Your task to perform on an android device: open app "Etsy: Buy & Sell Unique Items" (install if not already installed) Image 0: 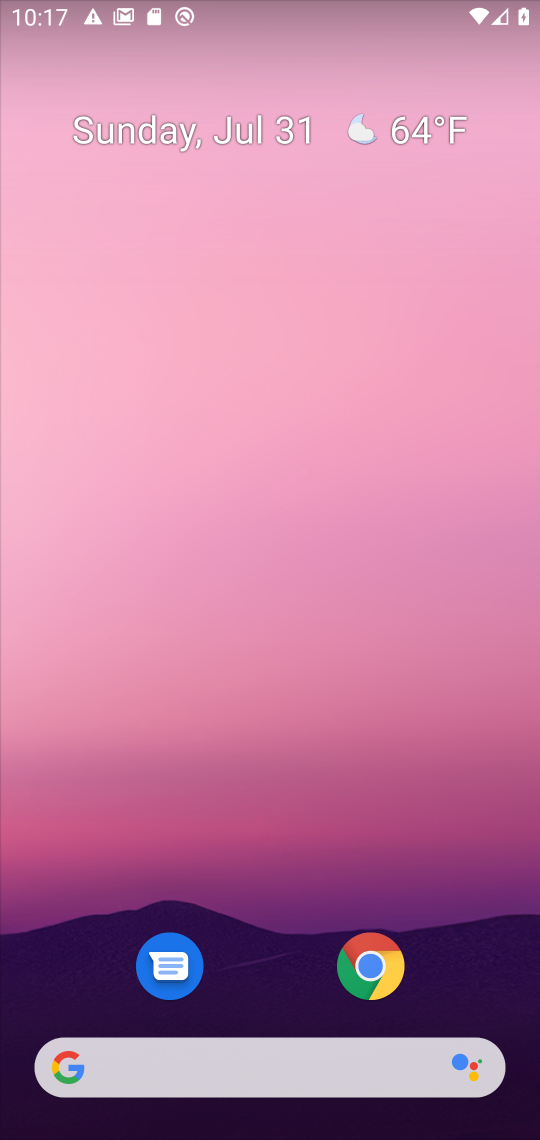
Step 0: drag from (262, 1004) to (320, 195)
Your task to perform on an android device: open app "Etsy: Buy & Sell Unique Items" (install if not already installed) Image 1: 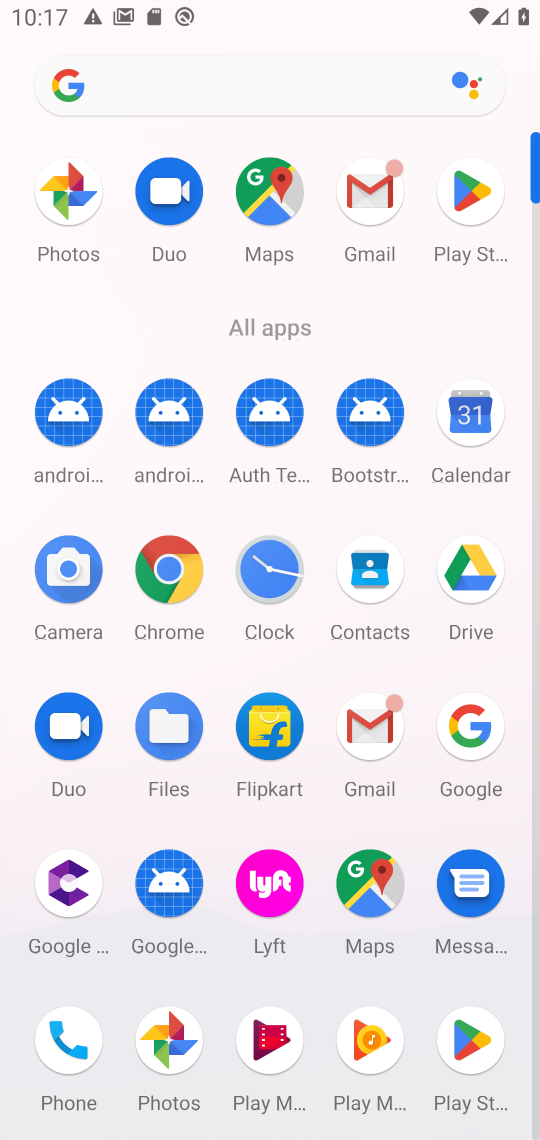
Step 1: click (468, 195)
Your task to perform on an android device: open app "Etsy: Buy & Sell Unique Items" (install if not already installed) Image 2: 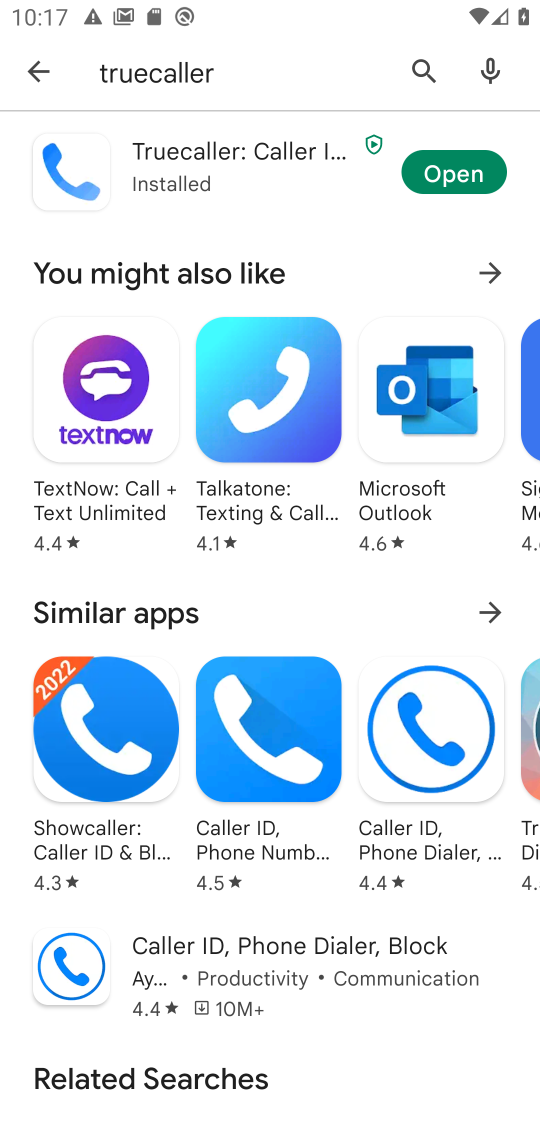
Step 2: click (210, 85)
Your task to perform on an android device: open app "Etsy: Buy & Sell Unique Items" (install if not already installed) Image 3: 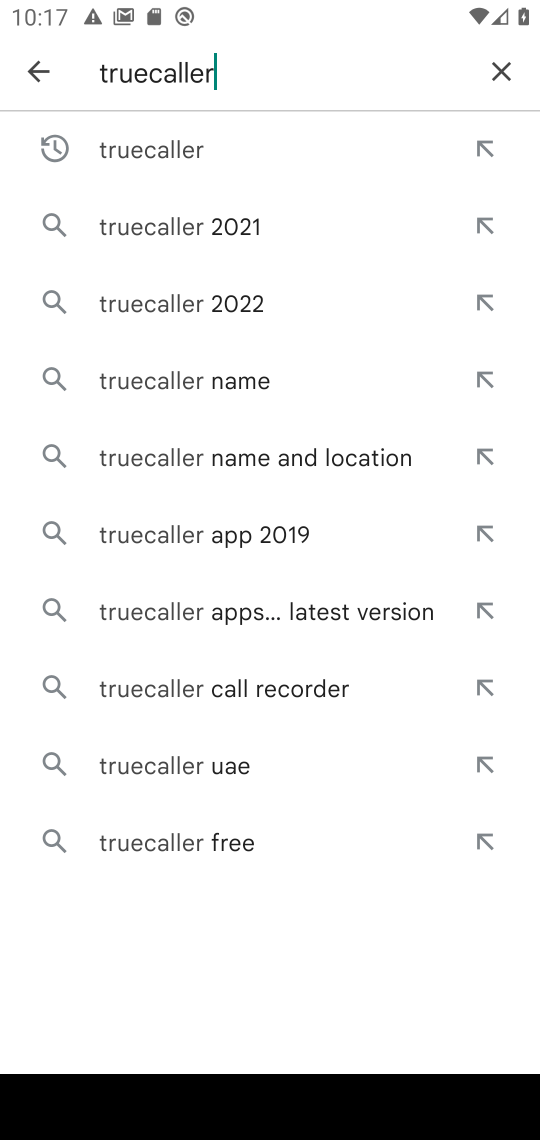
Step 3: click (500, 78)
Your task to perform on an android device: open app "Etsy: Buy & Sell Unique Items" (install if not already installed) Image 4: 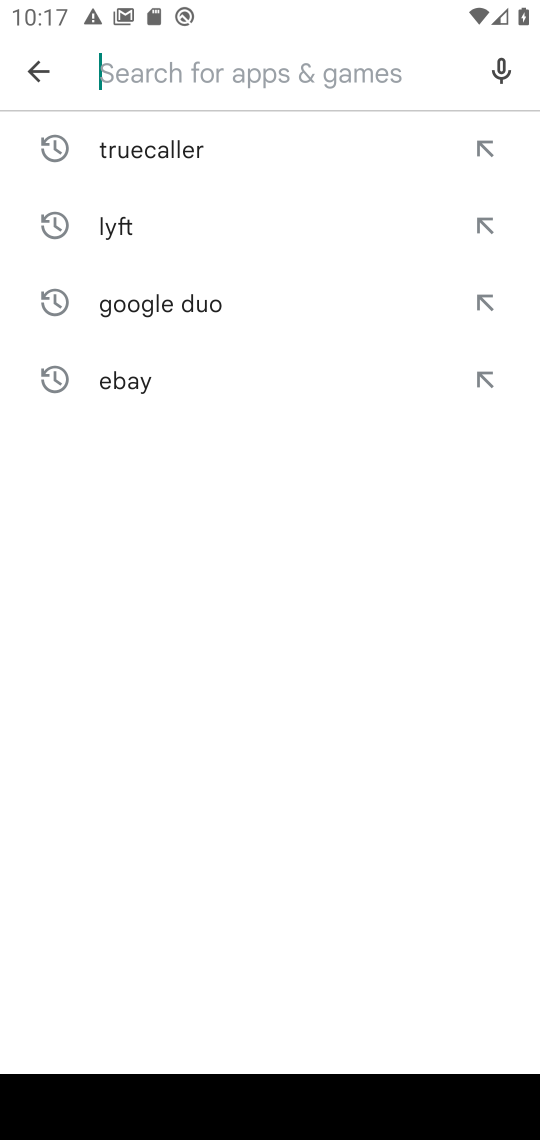
Step 4: type "etsy"
Your task to perform on an android device: open app "Etsy: Buy & Sell Unique Items" (install if not already installed) Image 5: 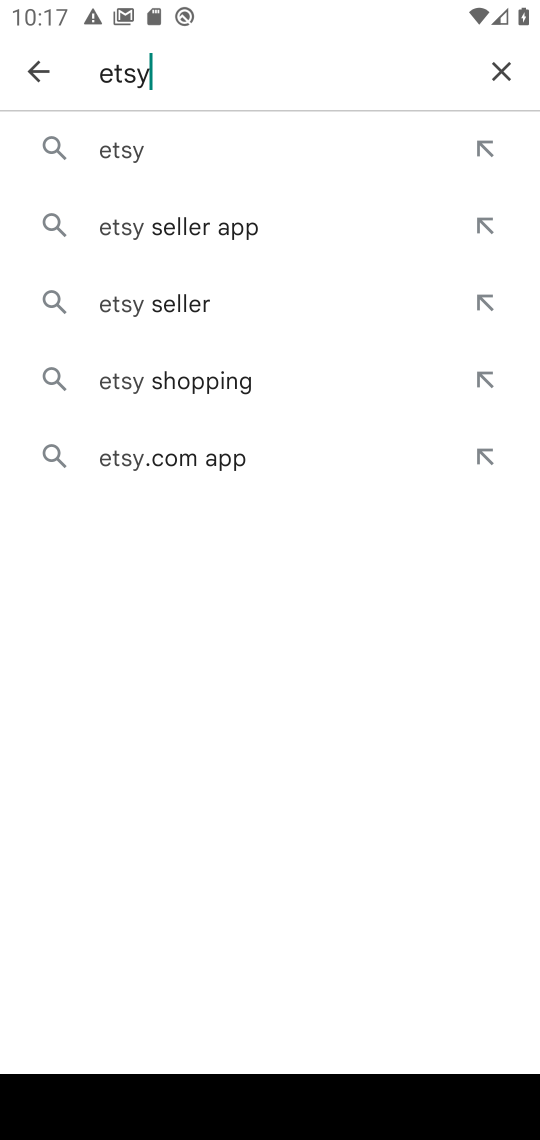
Step 5: click (146, 150)
Your task to perform on an android device: open app "Etsy: Buy & Sell Unique Items" (install if not already installed) Image 6: 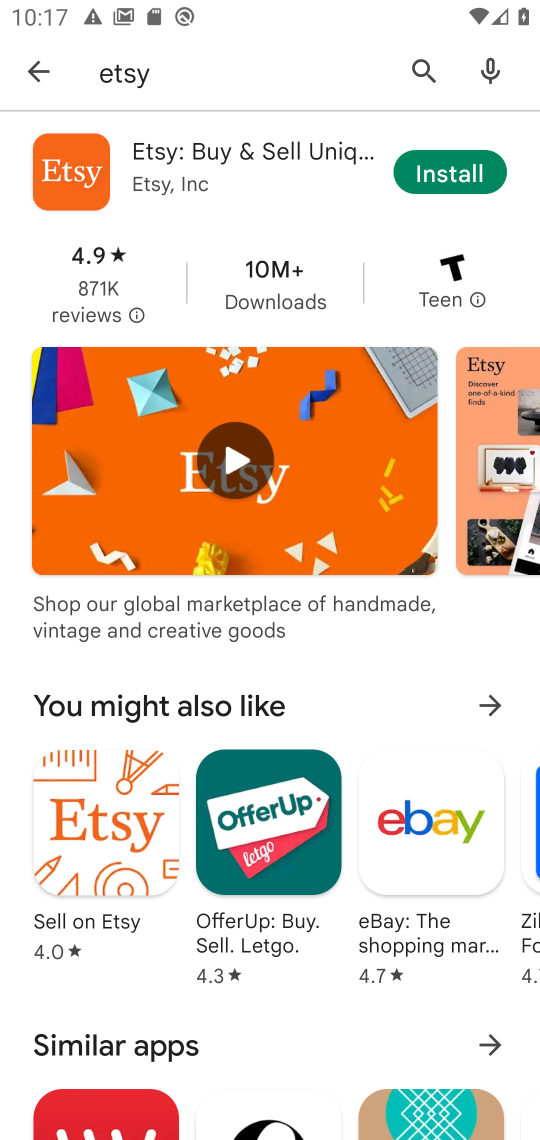
Step 6: click (440, 165)
Your task to perform on an android device: open app "Etsy: Buy & Sell Unique Items" (install if not already installed) Image 7: 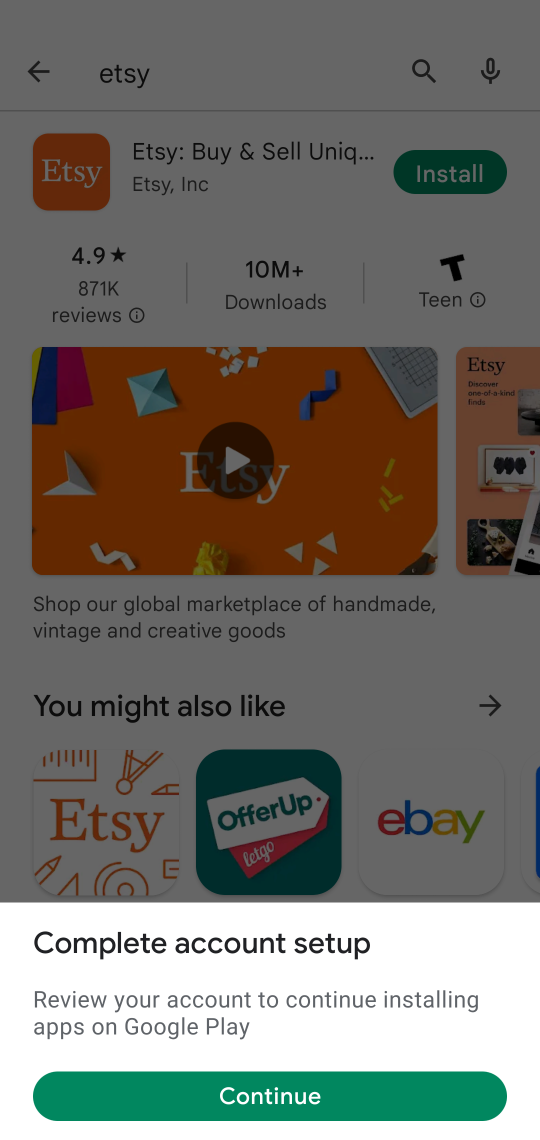
Step 7: click (205, 1109)
Your task to perform on an android device: open app "Etsy: Buy & Sell Unique Items" (install if not already installed) Image 8: 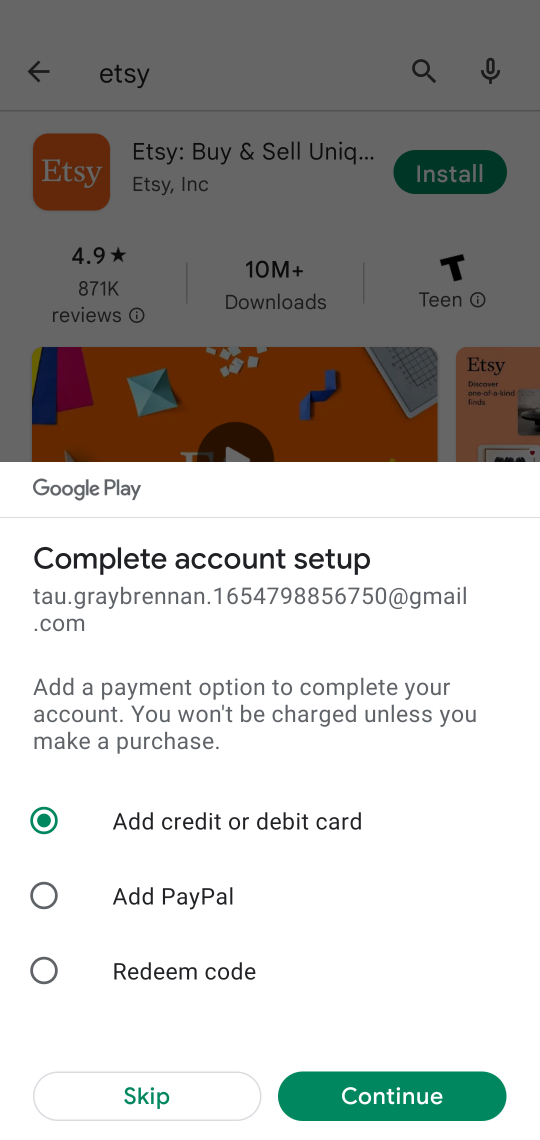
Step 8: click (126, 1093)
Your task to perform on an android device: open app "Etsy: Buy & Sell Unique Items" (install if not already installed) Image 9: 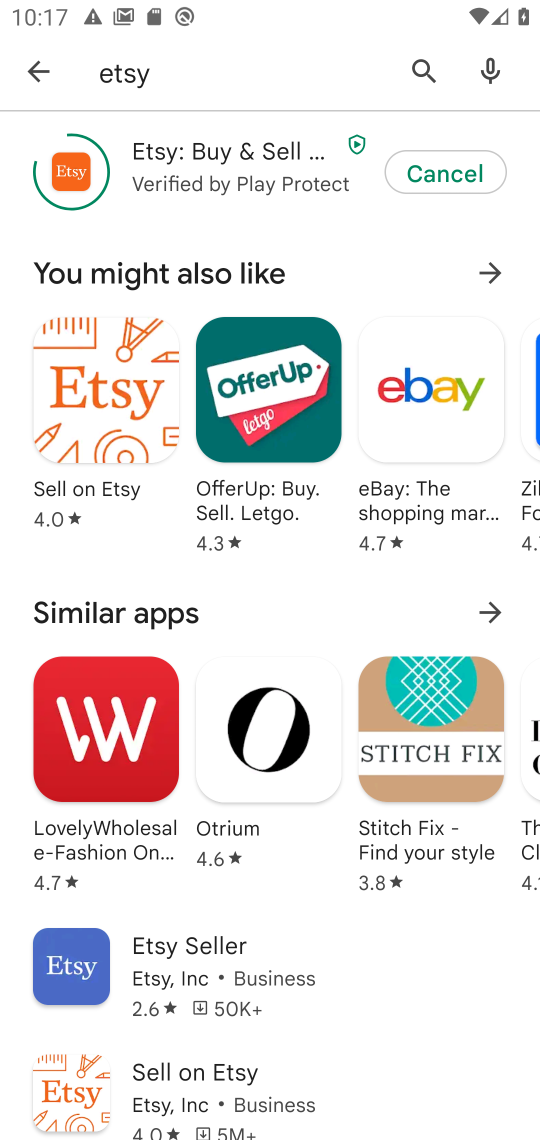
Step 9: click (422, 166)
Your task to perform on an android device: open app "Etsy: Buy & Sell Unique Items" (install if not already installed) Image 10: 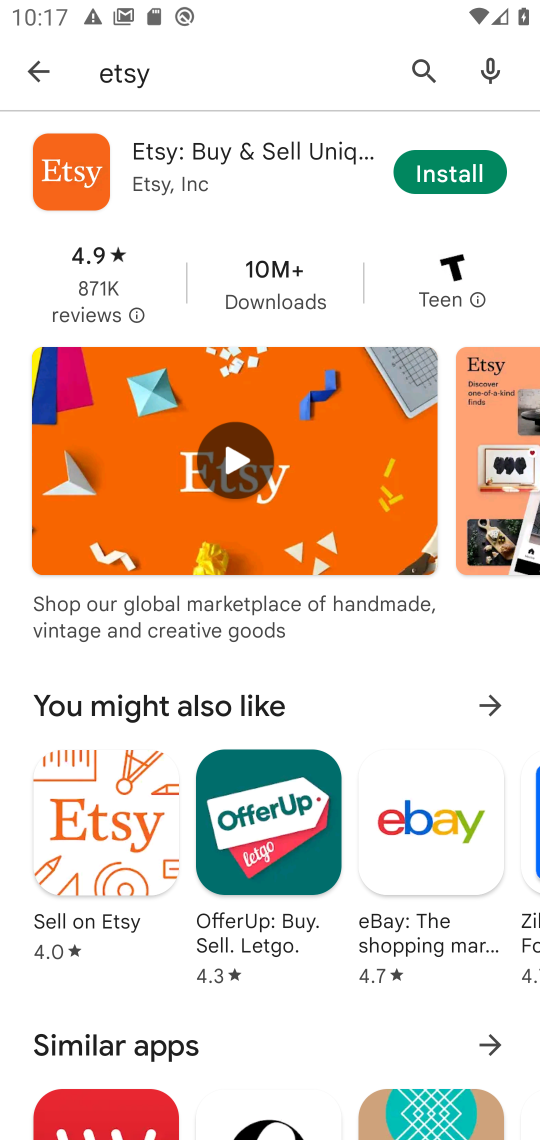
Step 10: click (423, 173)
Your task to perform on an android device: open app "Etsy: Buy & Sell Unique Items" (install if not already installed) Image 11: 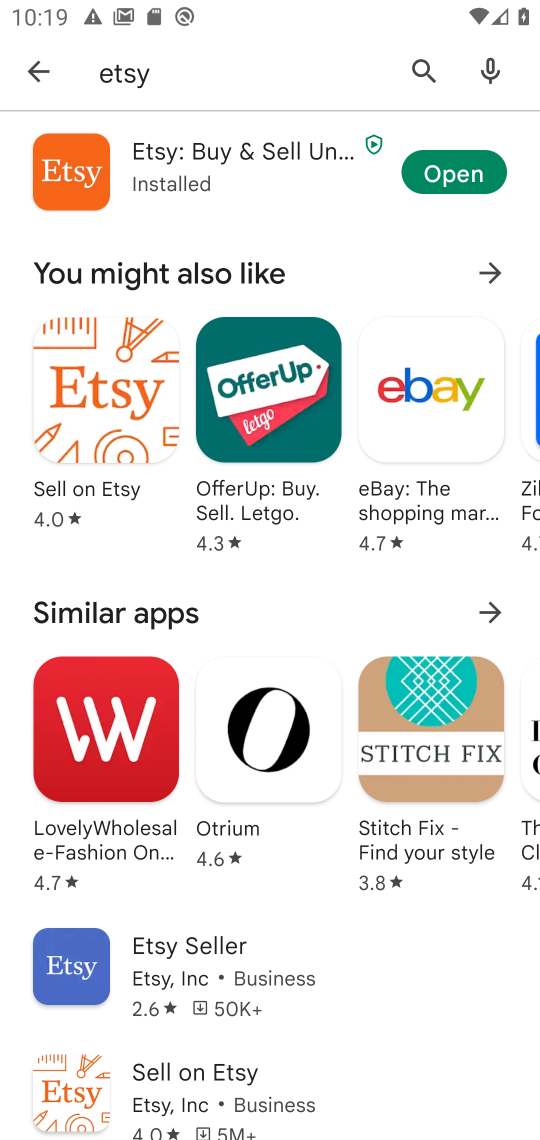
Step 11: click (434, 173)
Your task to perform on an android device: open app "Etsy: Buy & Sell Unique Items" (install if not already installed) Image 12: 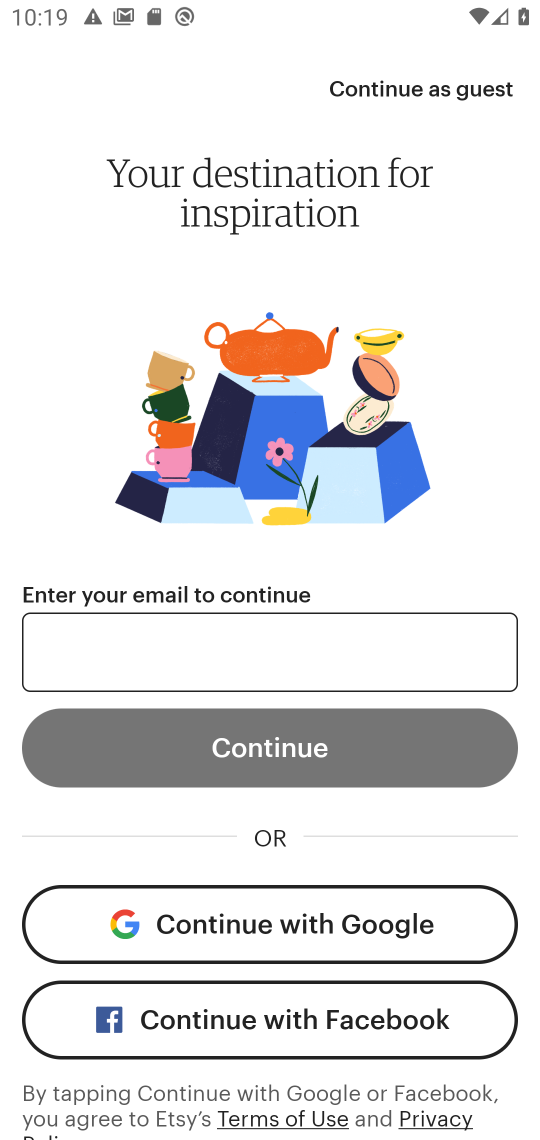
Step 12: click (357, 922)
Your task to perform on an android device: open app "Etsy: Buy & Sell Unique Items" (install if not already installed) Image 13: 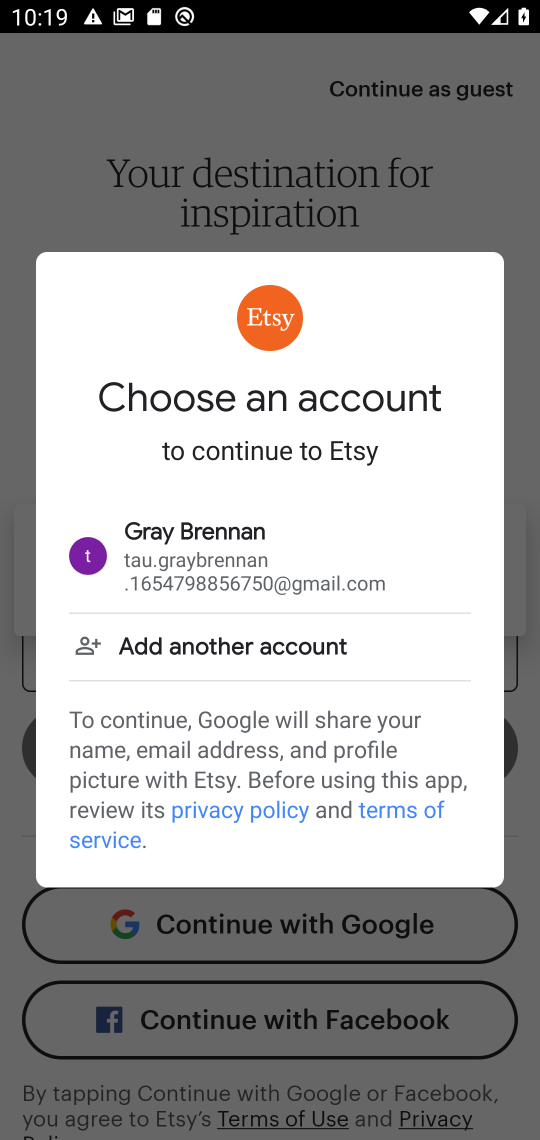
Step 13: click (266, 574)
Your task to perform on an android device: open app "Etsy: Buy & Sell Unique Items" (install if not already installed) Image 14: 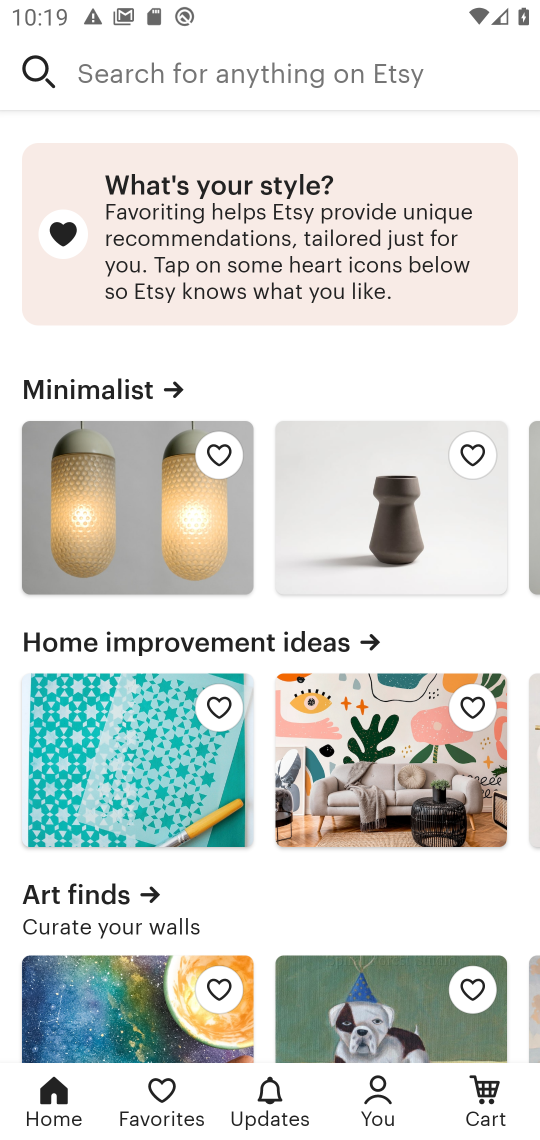
Step 14: task complete